Your task to perform on an android device: check android version Image 0: 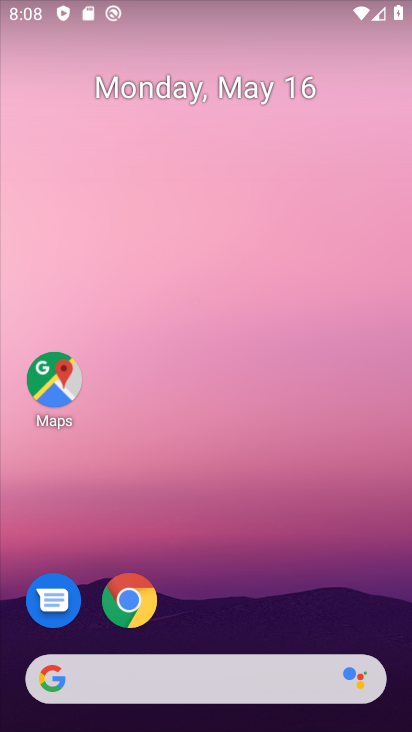
Step 0: drag from (202, 598) to (288, 18)
Your task to perform on an android device: check android version Image 1: 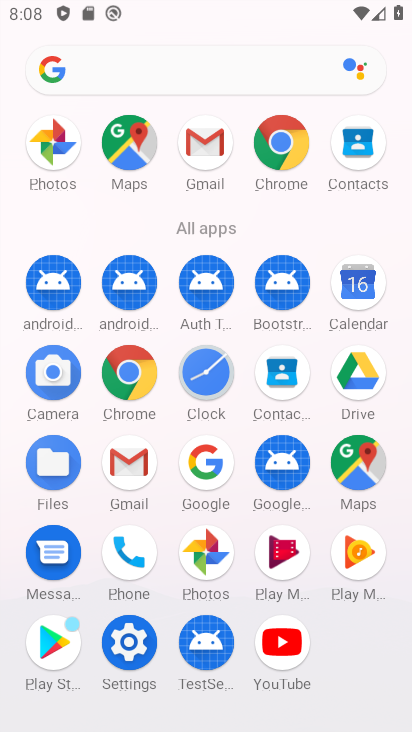
Step 1: click (136, 643)
Your task to perform on an android device: check android version Image 2: 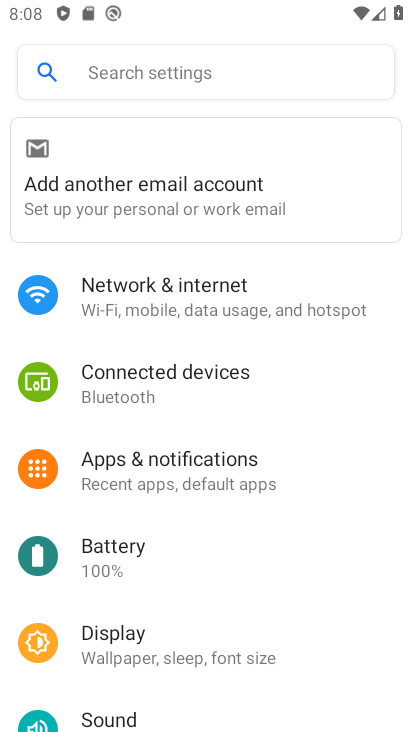
Step 2: drag from (182, 709) to (283, 252)
Your task to perform on an android device: check android version Image 3: 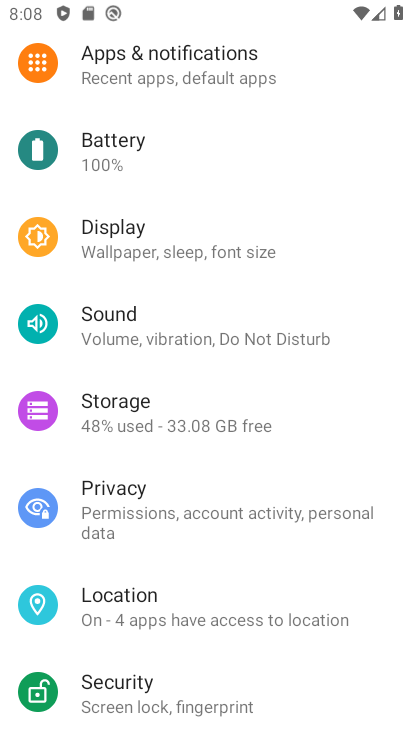
Step 3: drag from (231, 600) to (297, 31)
Your task to perform on an android device: check android version Image 4: 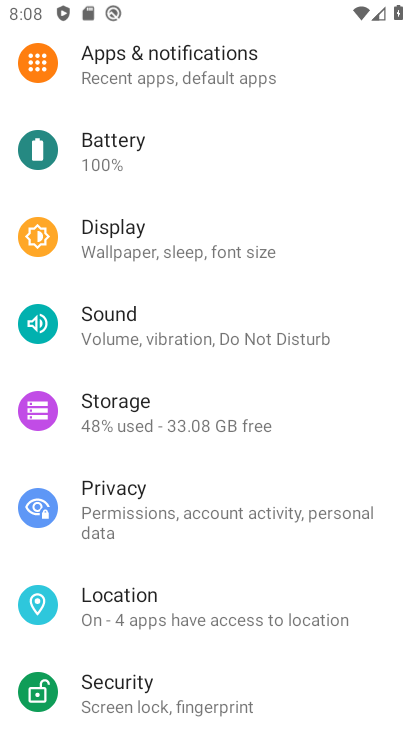
Step 4: drag from (211, 649) to (276, 130)
Your task to perform on an android device: check android version Image 5: 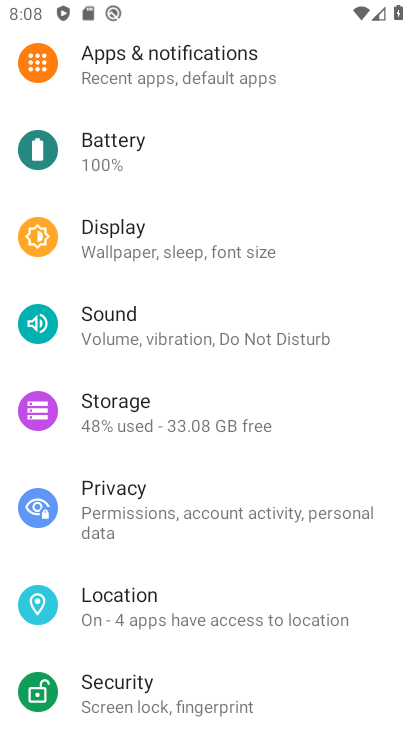
Step 5: drag from (167, 701) to (299, 44)
Your task to perform on an android device: check android version Image 6: 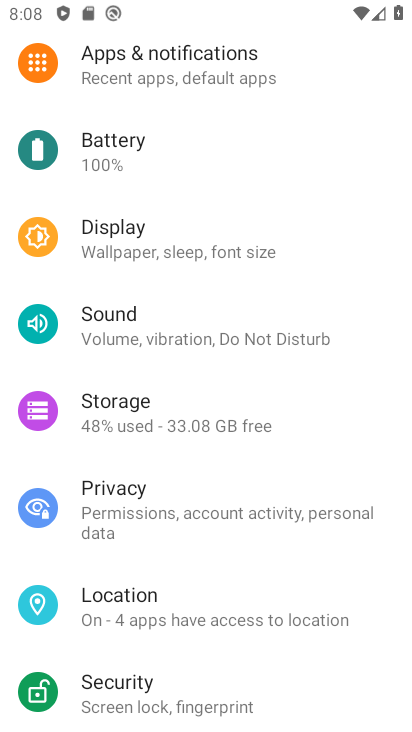
Step 6: drag from (294, 693) to (368, 63)
Your task to perform on an android device: check android version Image 7: 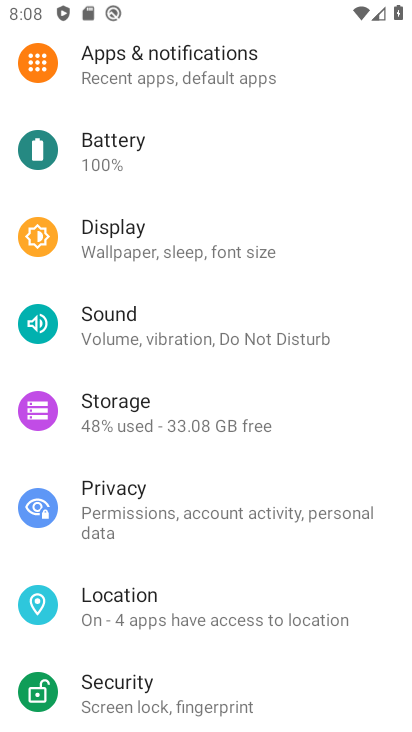
Step 7: drag from (231, 712) to (337, 0)
Your task to perform on an android device: check android version Image 8: 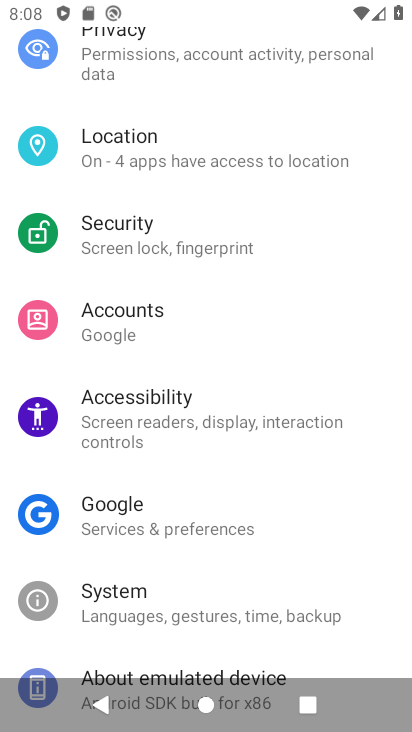
Step 8: drag from (267, 638) to (285, 212)
Your task to perform on an android device: check android version Image 9: 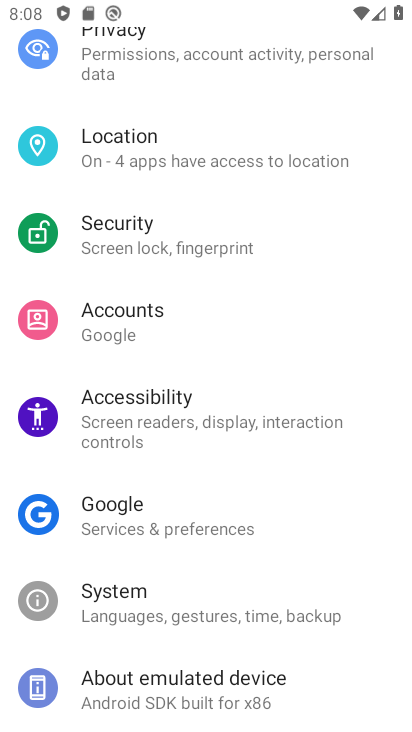
Step 9: click (278, 675)
Your task to perform on an android device: check android version Image 10: 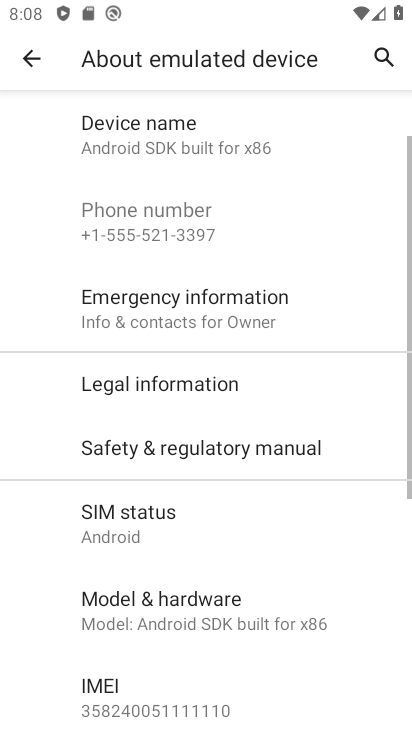
Step 10: drag from (255, 687) to (330, 313)
Your task to perform on an android device: check android version Image 11: 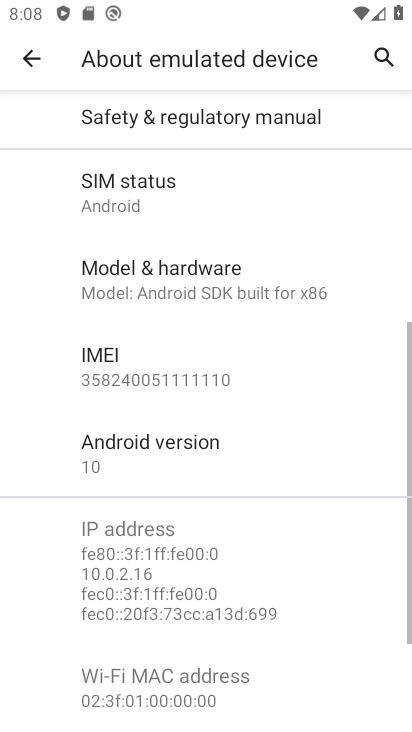
Step 11: click (206, 457)
Your task to perform on an android device: check android version Image 12: 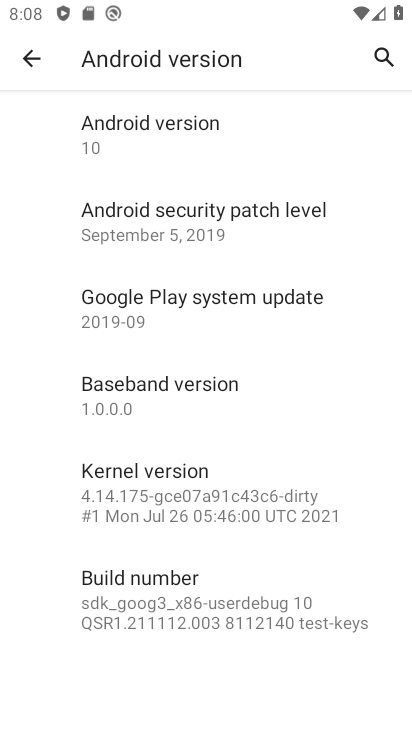
Step 12: task complete